Your task to perform on an android device: Add razer deathadder to the cart on walmart Image 0: 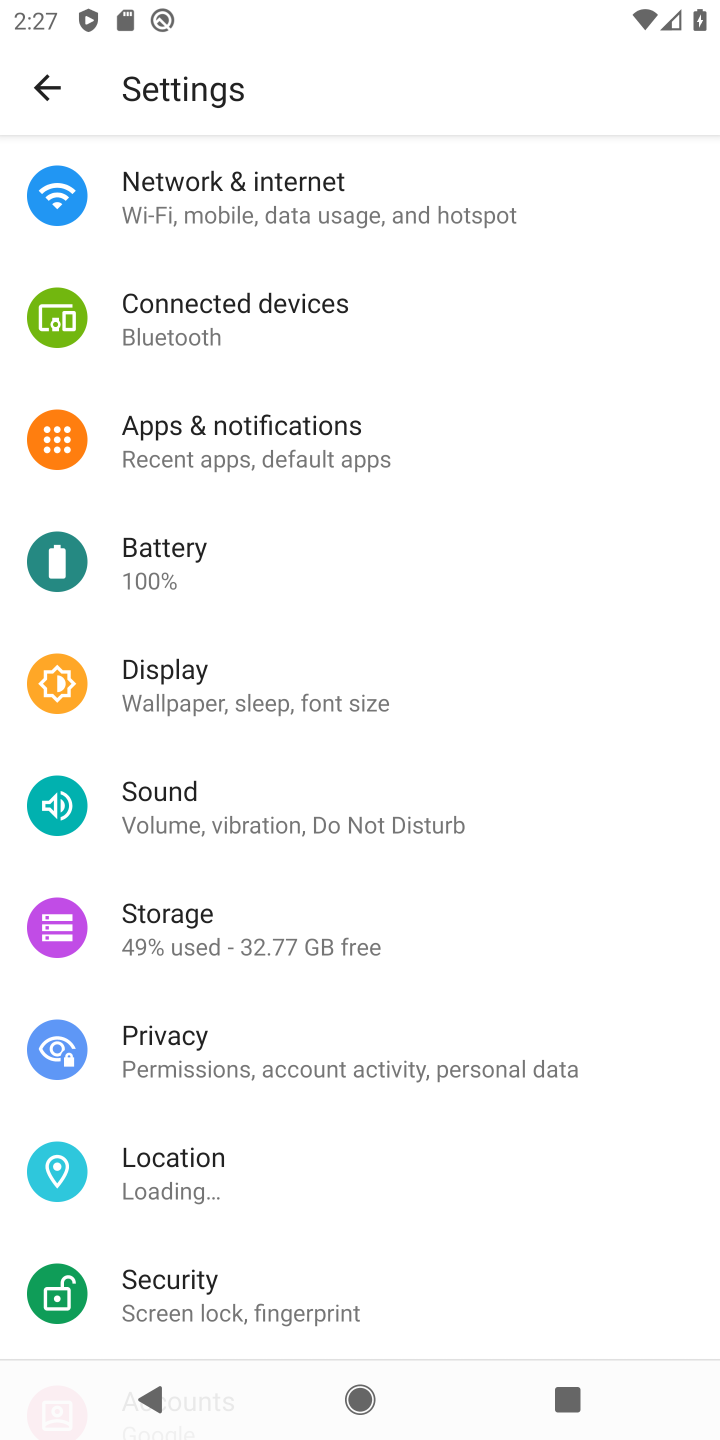
Step 0: press home button
Your task to perform on an android device: Add razer deathadder to the cart on walmart Image 1: 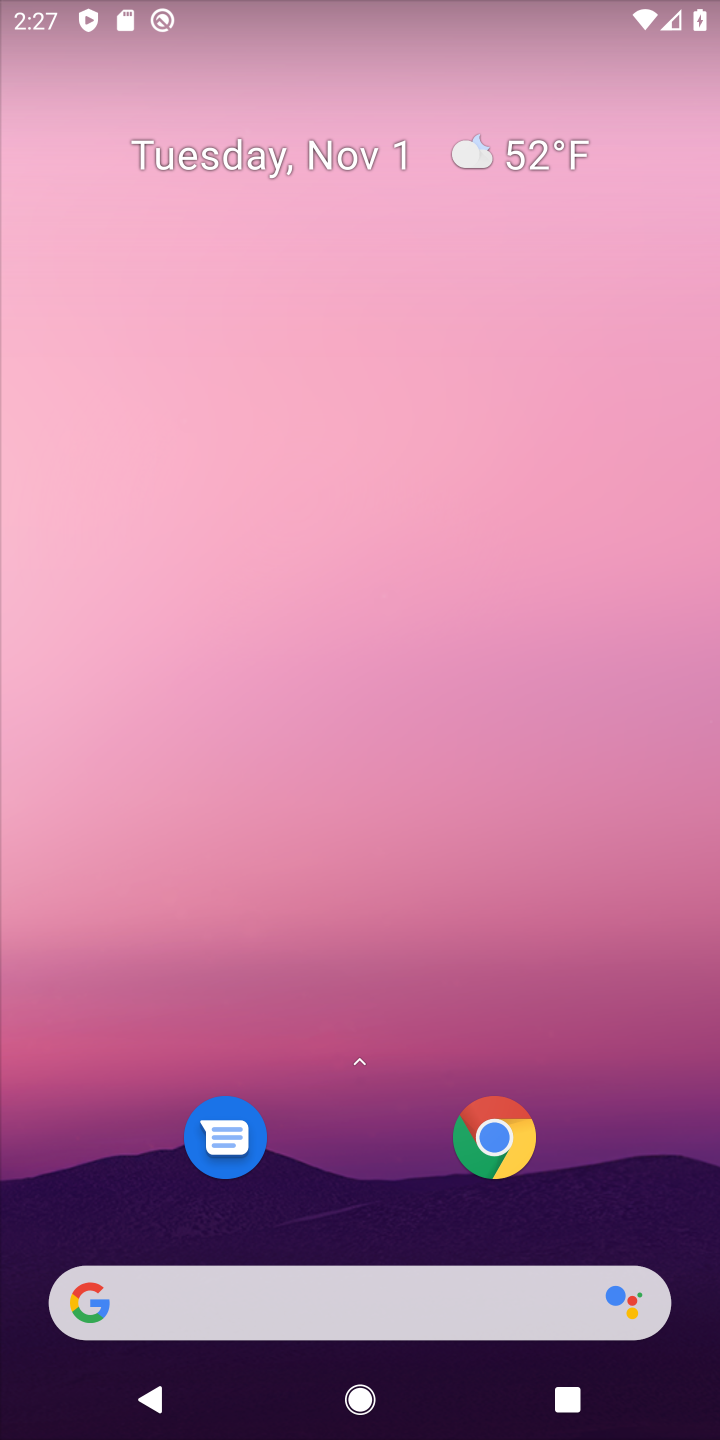
Step 1: click (466, 1298)
Your task to perform on an android device: Add razer deathadder to the cart on walmart Image 2: 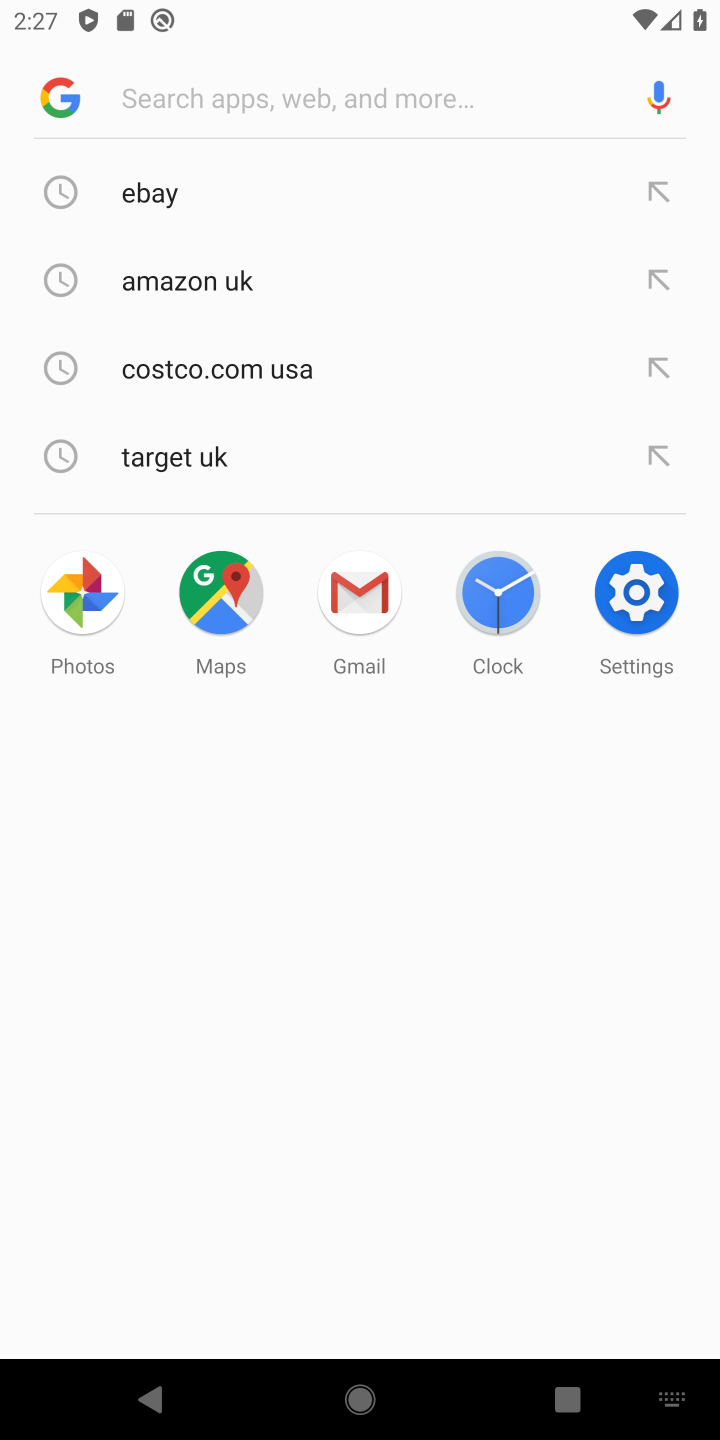
Step 2: type "razer deathadder"
Your task to perform on an android device: Add razer deathadder to the cart on walmart Image 3: 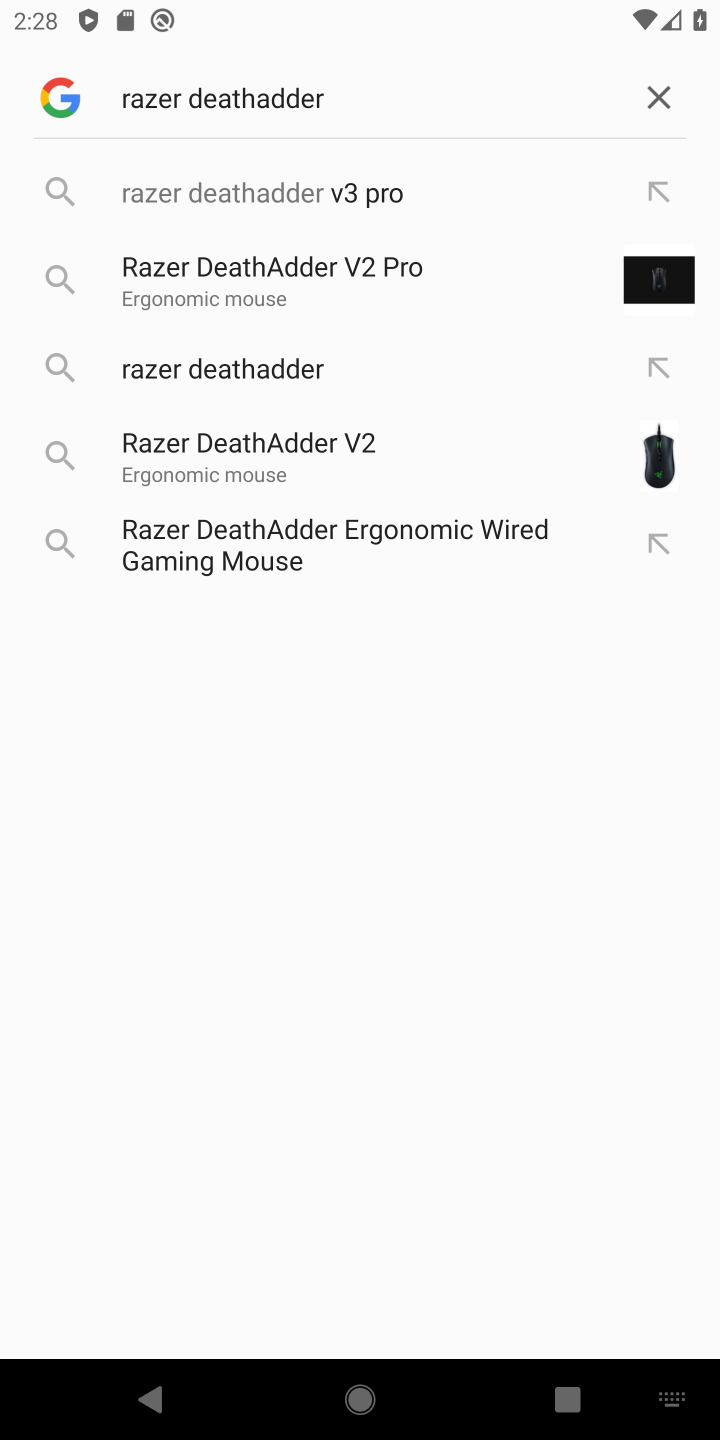
Step 3: click (138, 203)
Your task to perform on an android device: Add razer deathadder to the cart on walmart Image 4: 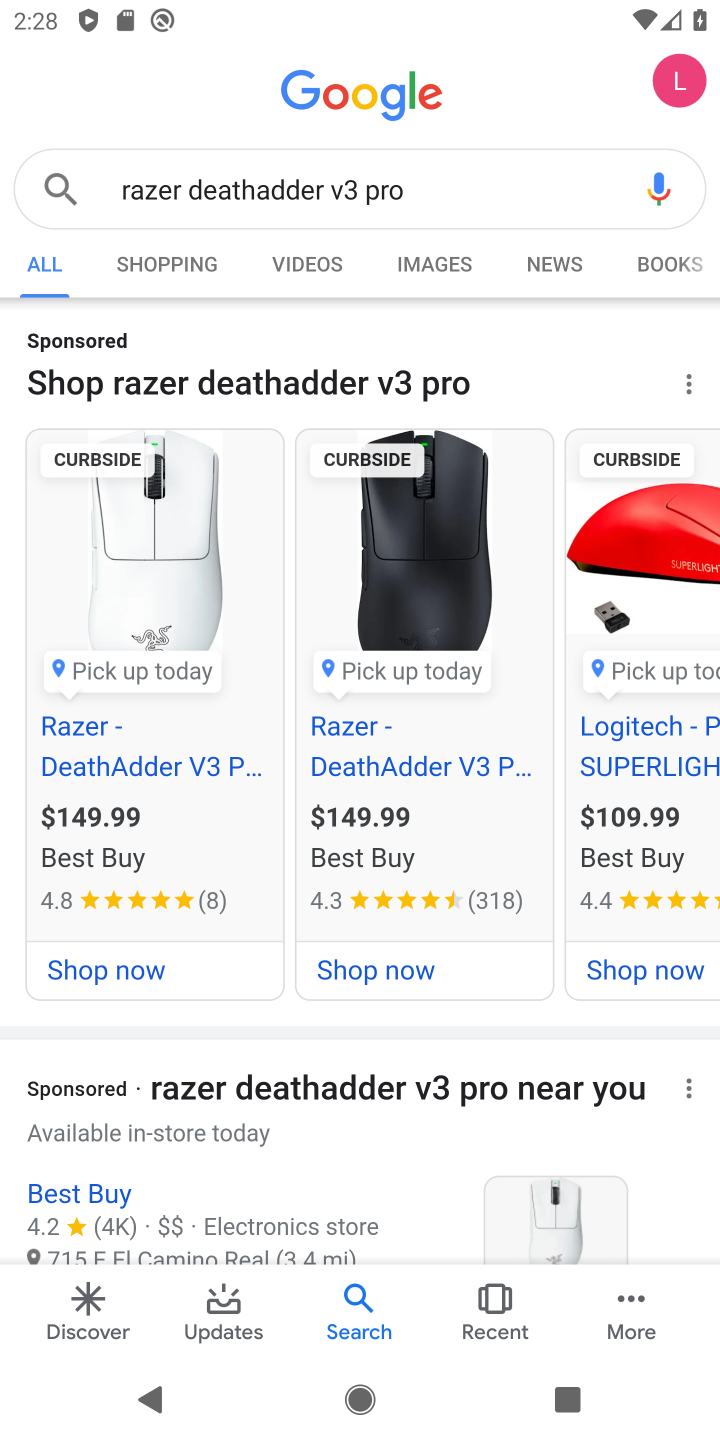
Step 4: task complete